Your task to perform on an android device: What's on my calendar today? Image 0: 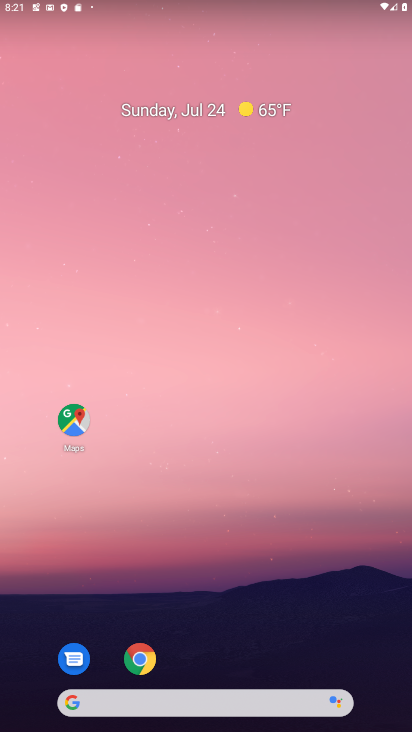
Step 0: drag from (273, 685) to (275, 31)
Your task to perform on an android device: What's on my calendar today? Image 1: 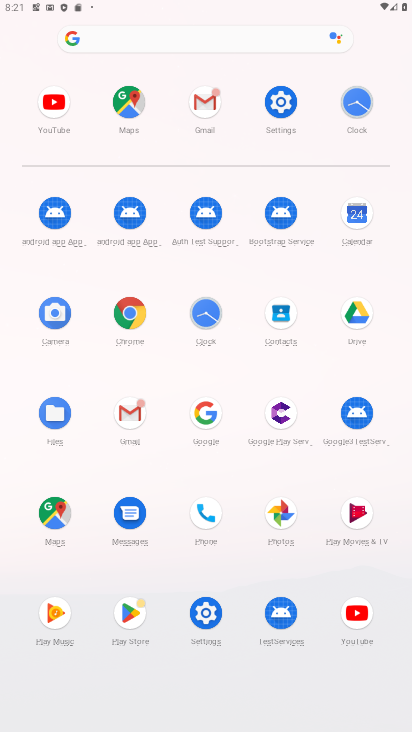
Step 1: click (354, 220)
Your task to perform on an android device: What's on my calendar today? Image 2: 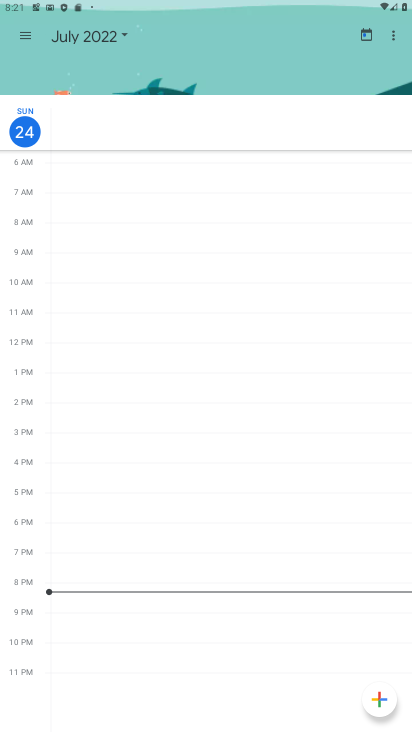
Step 2: drag from (191, 535) to (210, 259)
Your task to perform on an android device: What's on my calendar today? Image 3: 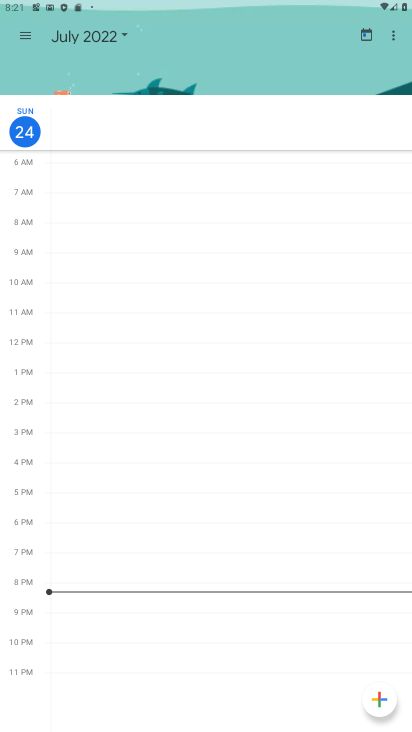
Step 3: click (23, 34)
Your task to perform on an android device: What's on my calendar today? Image 4: 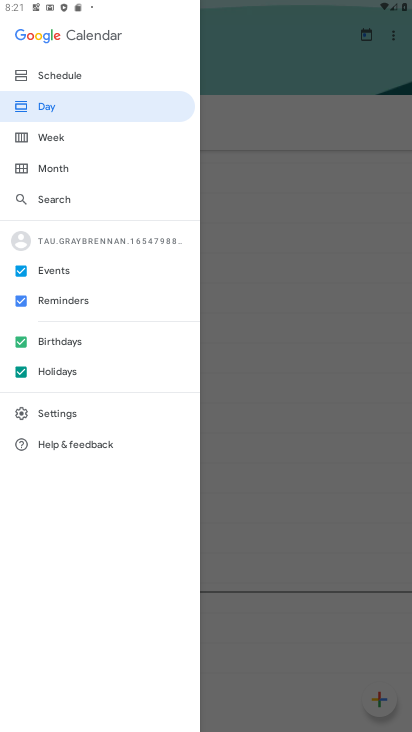
Step 4: click (35, 106)
Your task to perform on an android device: What's on my calendar today? Image 5: 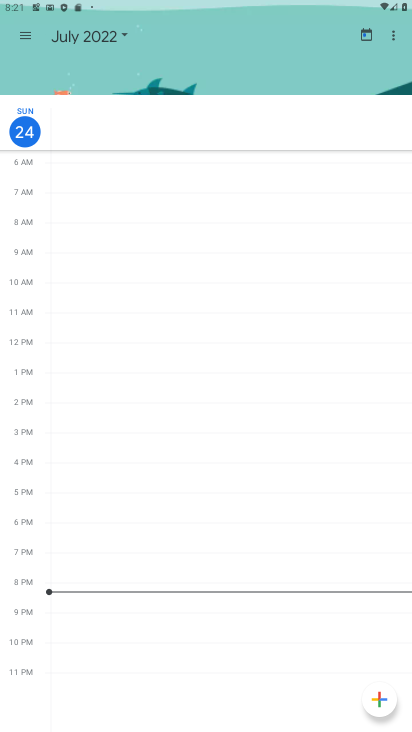
Step 5: task complete